Your task to perform on an android device: uninstall "YouTube Kids" Image 0: 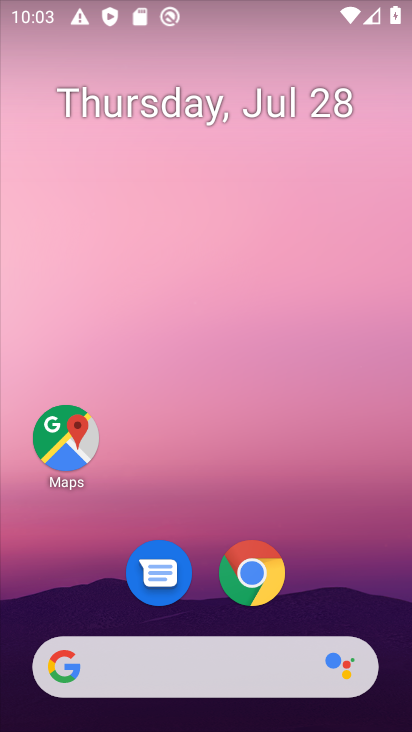
Step 0: drag from (35, 634) to (286, 117)
Your task to perform on an android device: uninstall "YouTube Kids" Image 1: 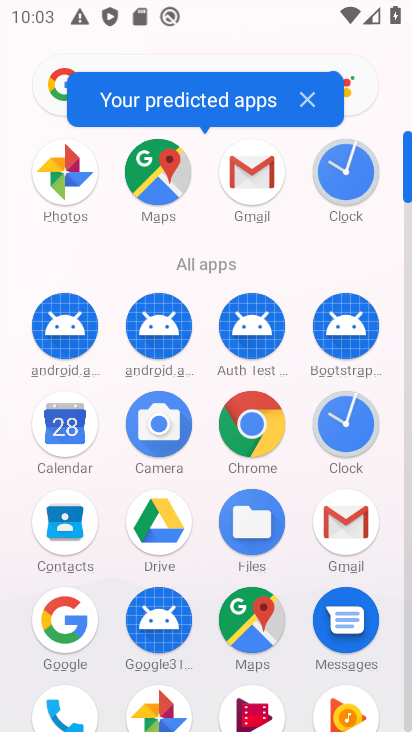
Step 1: drag from (160, 698) to (314, 261)
Your task to perform on an android device: uninstall "YouTube Kids" Image 2: 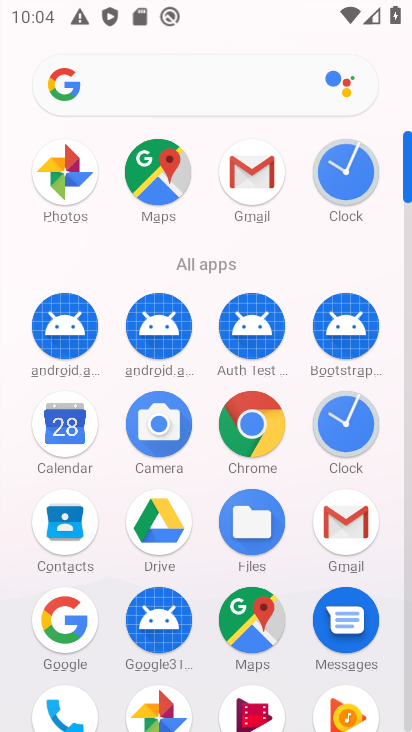
Step 2: drag from (168, 698) to (267, 49)
Your task to perform on an android device: uninstall "YouTube Kids" Image 3: 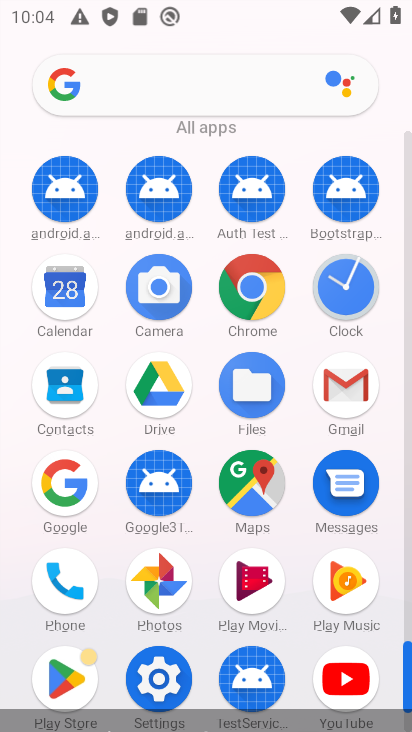
Step 3: click (336, 667)
Your task to perform on an android device: uninstall "YouTube Kids" Image 4: 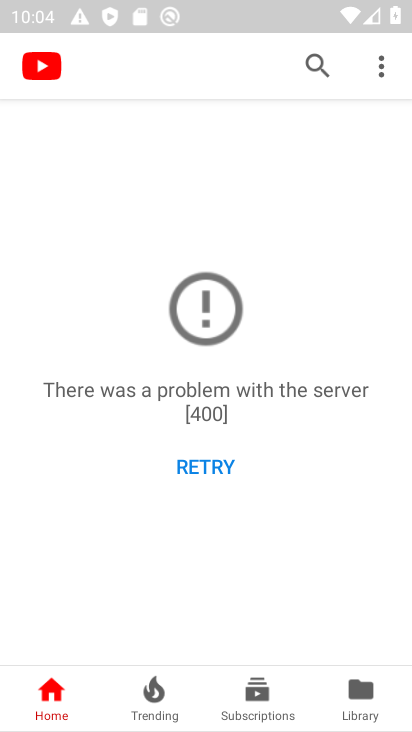
Step 4: task complete